Your task to perform on an android device: Is it going to rain today? Image 0: 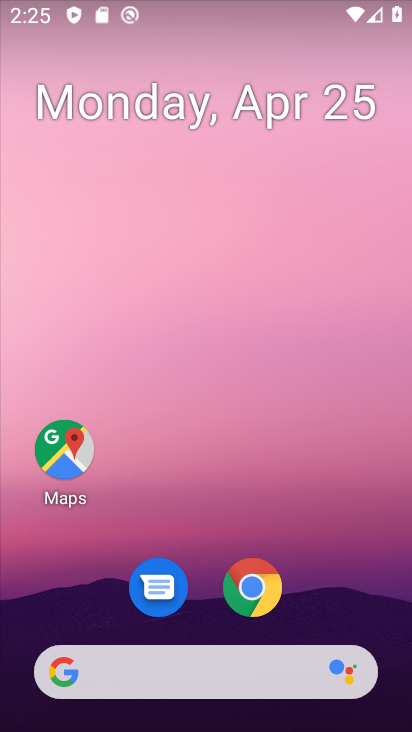
Step 0: drag from (207, 559) to (195, 293)
Your task to perform on an android device: Is it going to rain today? Image 1: 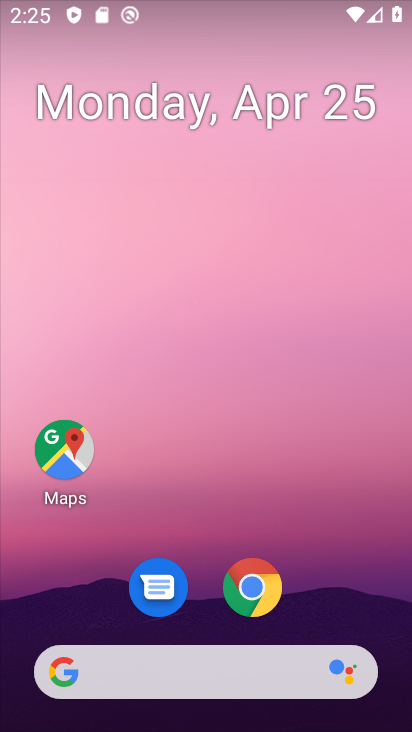
Step 1: drag from (213, 263) to (216, 97)
Your task to perform on an android device: Is it going to rain today? Image 2: 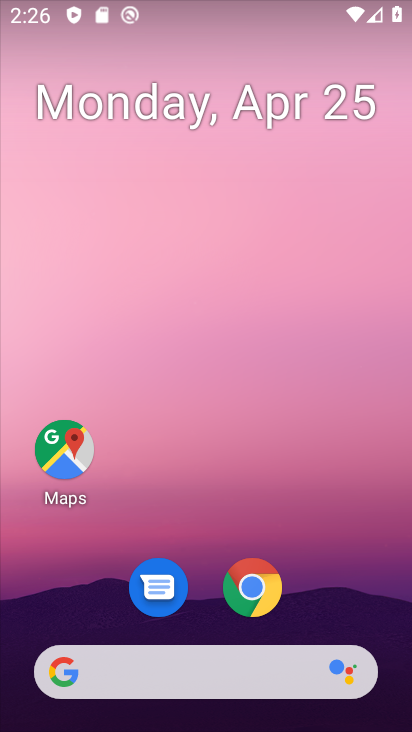
Step 2: drag from (217, 623) to (202, 47)
Your task to perform on an android device: Is it going to rain today? Image 3: 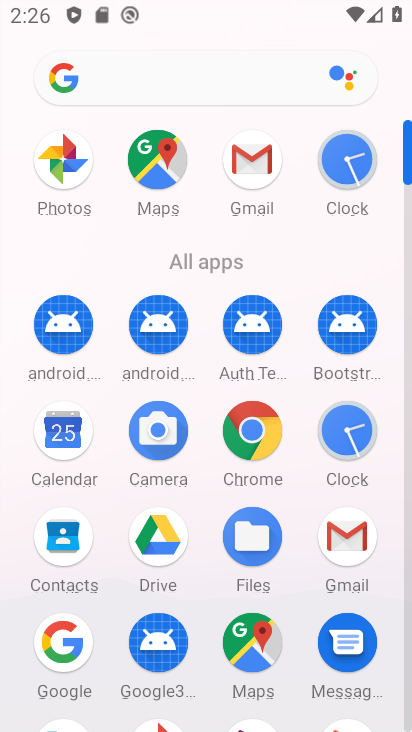
Step 3: click (66, 659)
Your task to perform on an android device: Is it going to rain today? Image 4: 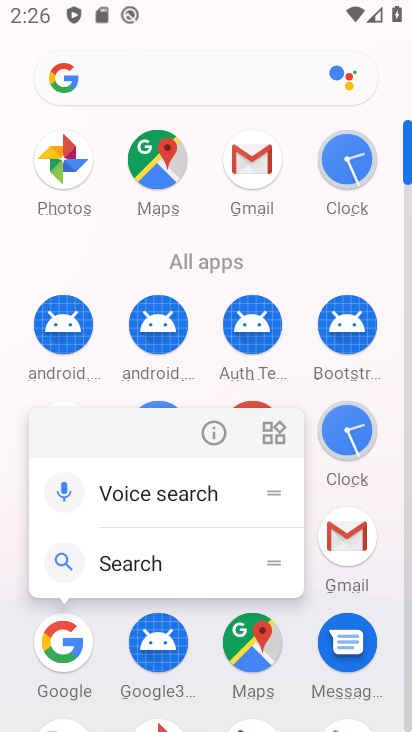
Step 4: click (214, 434)
Your task to perform on an android device: Is it going to rain today? Image 5: 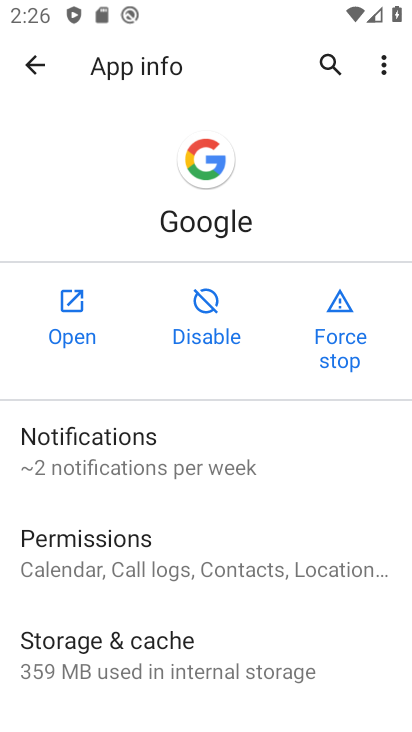
Step 5: click (78, 354)
Your task to perform on an android device: Is it going to rain today? Image 6: 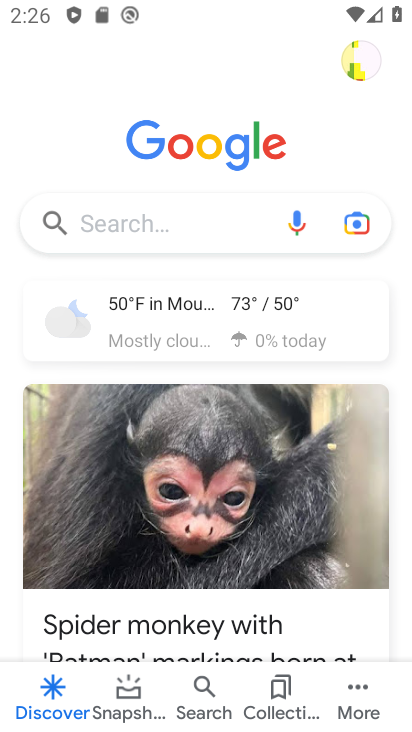
Step 6: click (177, 317)
Your task to perform on an android device: Is it going to rain today? Image 7: 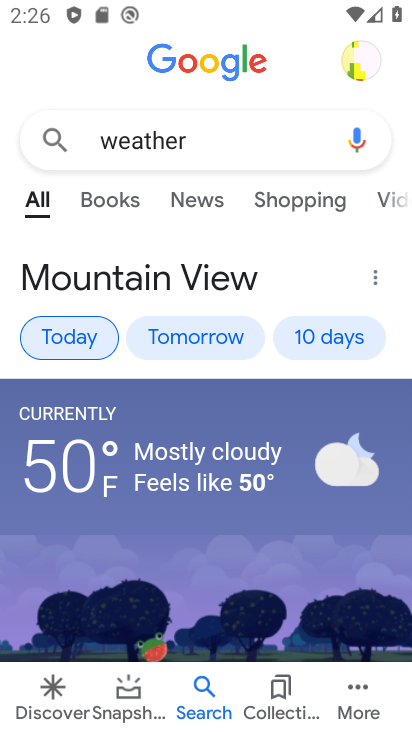
Step 7: task complete